Your task to perform on an android device: Open Wikipedia Image 0: 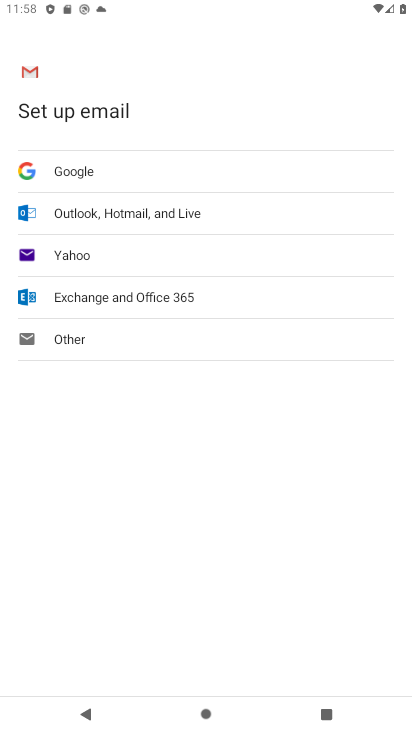
Step 0: press home button
Your task to perform on an android device: Open Wikipedia Image 1: 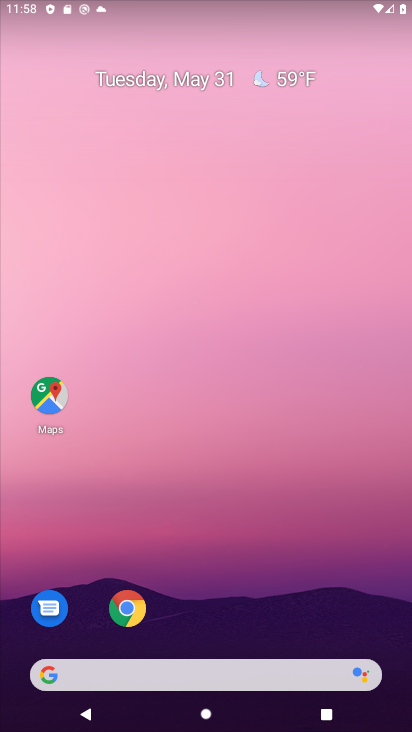
Step 1: click (133, 614)
Your task to perform on an android device: Open Wikipedia Image 2: 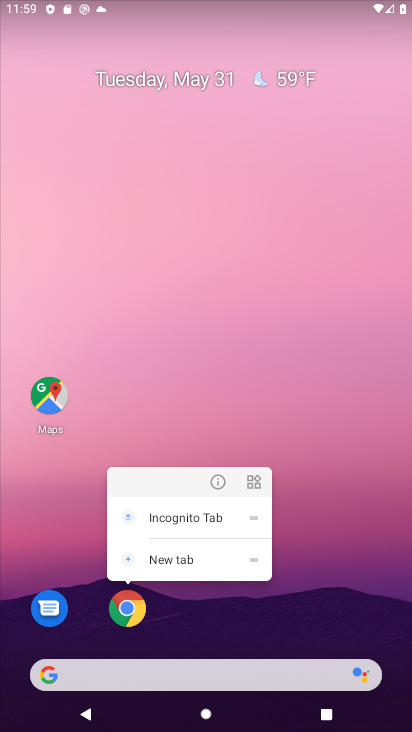
Step 2: click (138, 609)
Your task to perform on an android device: Open Wikipedia Image 3: 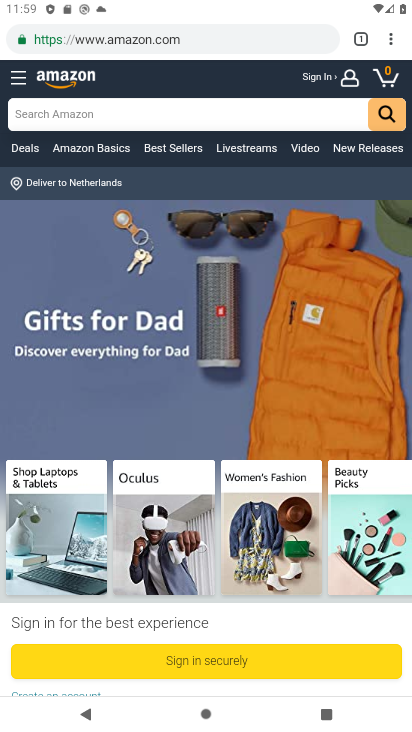
Step 3: click (179, 31)
Your task to perform on an android device: Open Wikipedia Image 4: 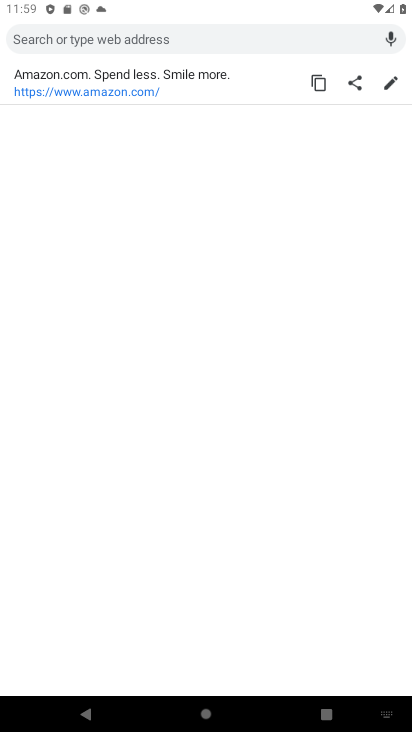
Step 4: type "wikipediia"
Your task to perform on an android device: Open Wikipedia Image 5: 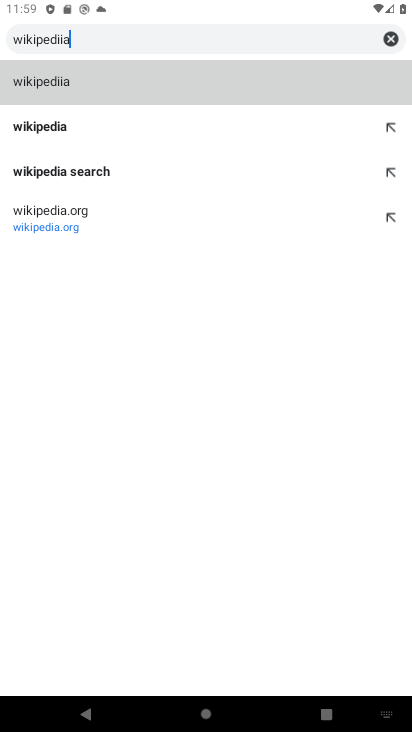
Step 5: click (54, 138)
Your task to perform on an android device: Open Wikipedia Image 6: 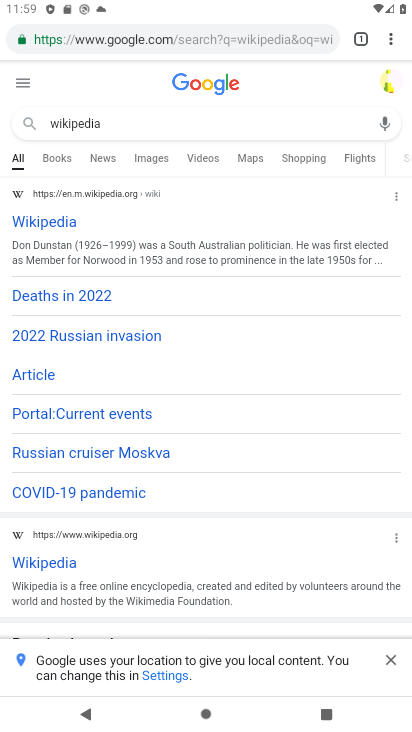
Step 6: task complete